Your task to perform on an android device: see creations saved in the google photos Image 0: 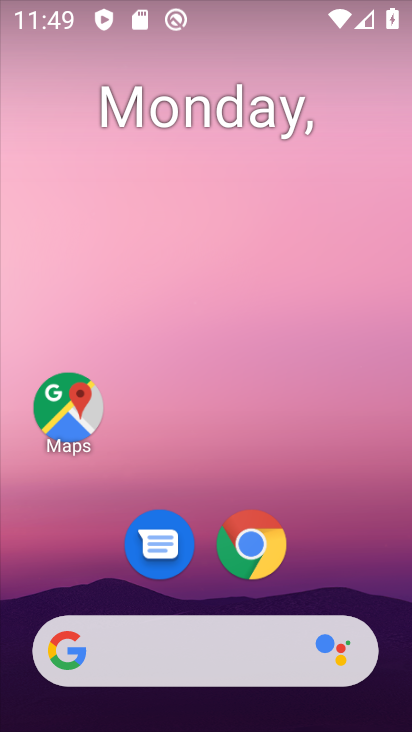
Step 0: drag from (311, 537) to (333, 186)
Your task to perform on an android device: see creations saved in the google photos Image 1: 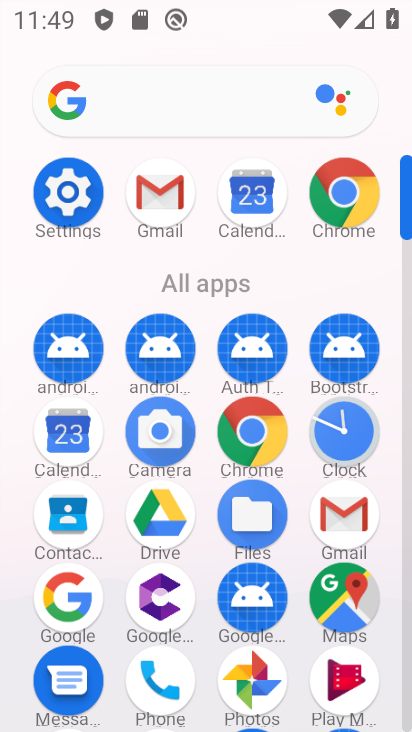
Step 1: click (262, 674)
Your task to perform on an android device: see creations saved in the google photos Image 2: 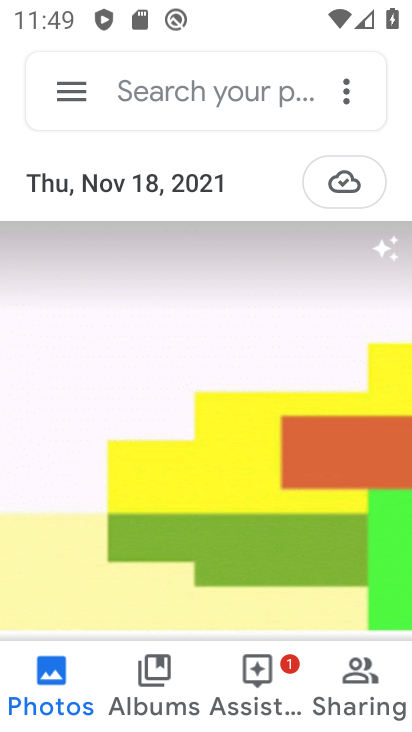
Step 2: task complete